Your task to perform on an android device: Open calendar and show me the second week of next month Image 0: 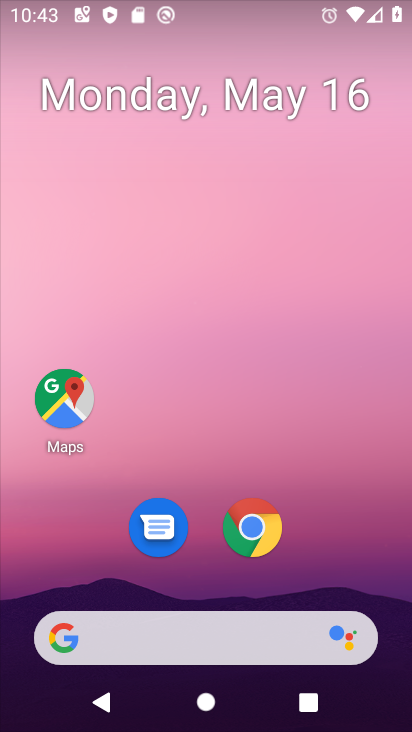
Step 0: drag from (373, 586) to (364, 1)
Your task to perform on an android device: Open calendar and show me the second week of next month Image 1: 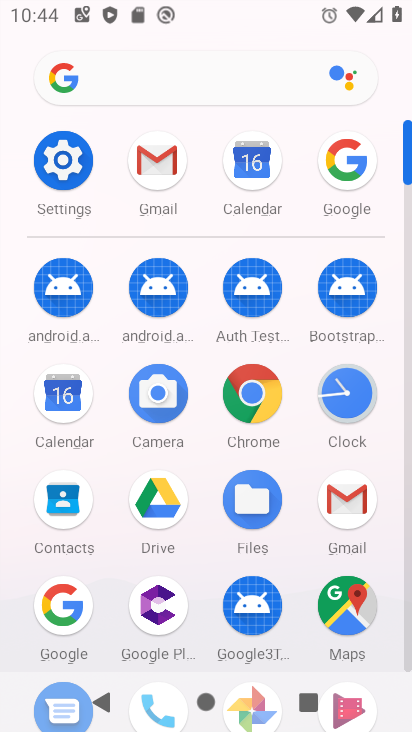
Step 1: click (252, 168)
Your task to perform on an android device: Open calendar and show me the second week of next month Image 2: 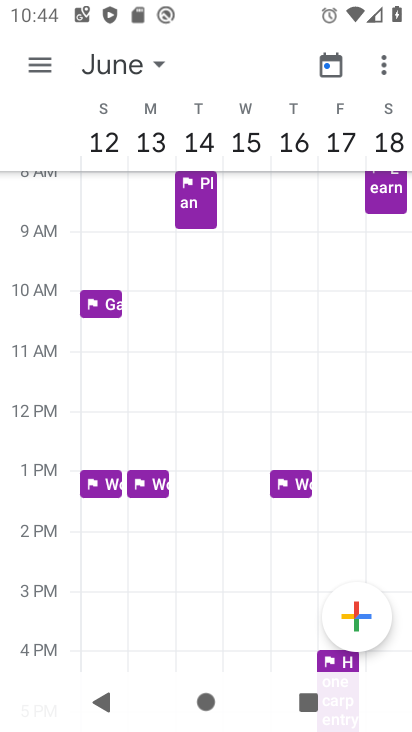
Step 2: task complete